Your task to perform on an android device: toggle data saver in the chrome app Image 0: 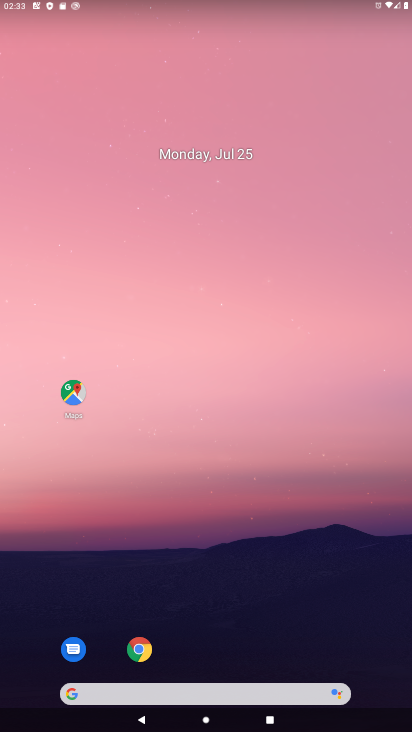
Step 0: click (139, 650)
Your task to perform on an android device: toggle data saver in the chrome app Image 1: 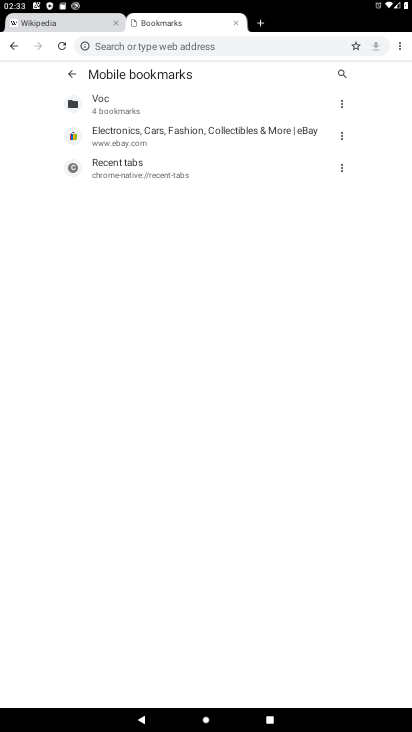
Step 1: click (399, 51)
Your task to perform on an android device: toggle data saver in the chrome app Image 2: 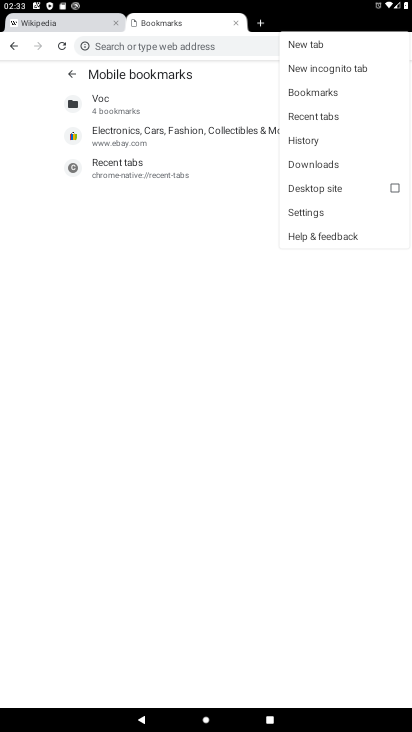
Step 2: click (312, 208)
Your task to perform on an android device: toggle data saver in the chrome app Image 3: 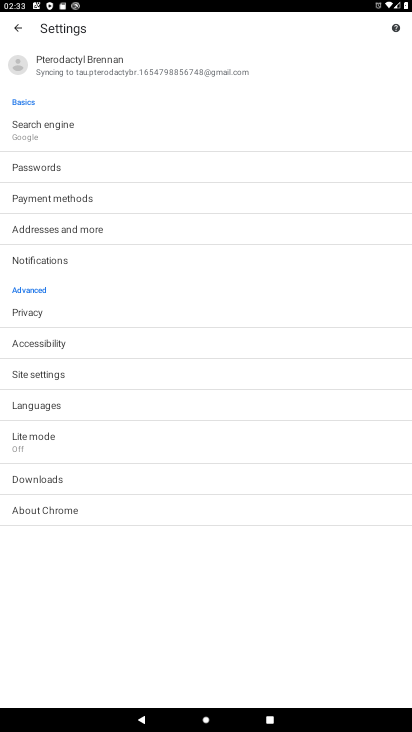
Step 3: click (25, 442)
Your task to perform on an android device: toggle data saver in the chrome app Image 4: 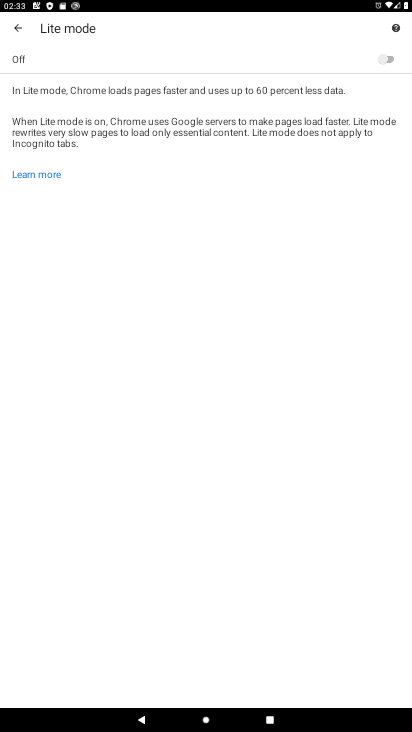
Step 4: click (390, 58)
Your task to perform on an android device: toggle data saver in the chrome app Image 5: 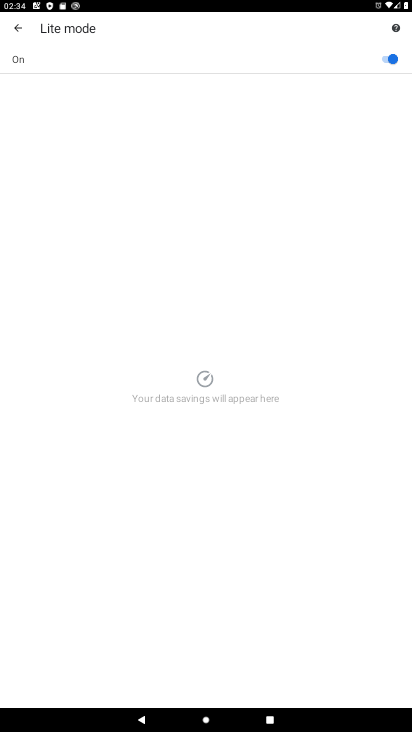
Step 5: task complete